Your task to perform on an android device: Open Amazon Image 0: 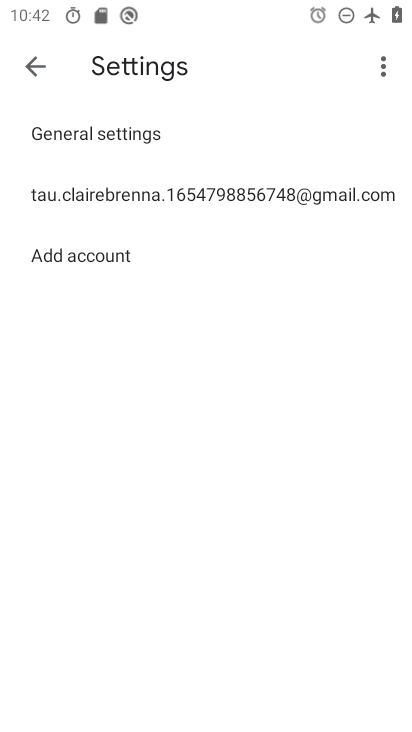
Step 0: press home button
Your task to perform on an android device: Open Amazon Image 1: 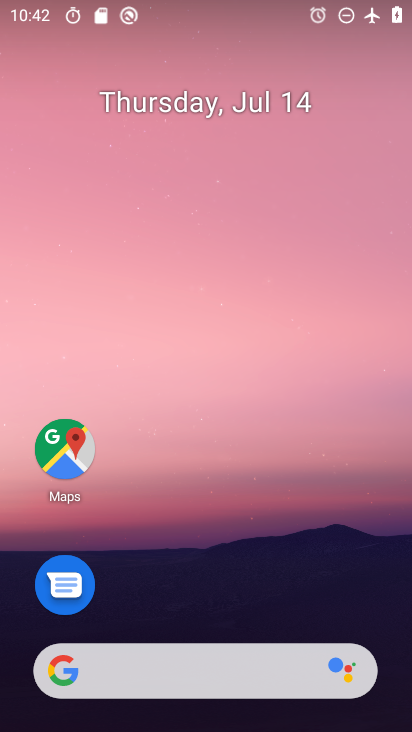
Step 1: drag from (228, 611) to (5, 5)
Your task to perform on an android device: Open Amazon Image 2: 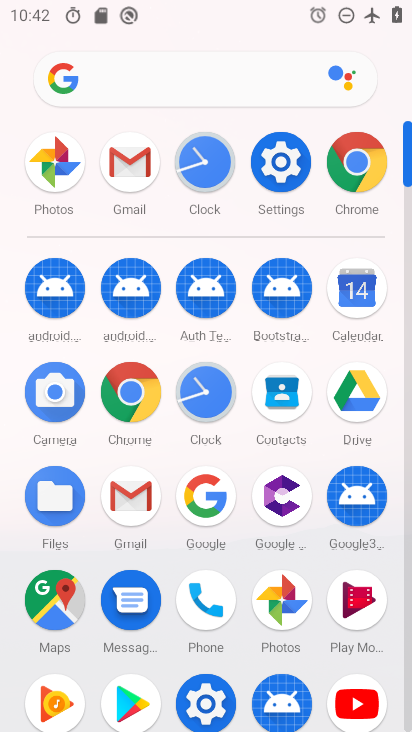
Step 2: click (111, 380)
Your task to perform on an android device: Open Amazon Image 3: 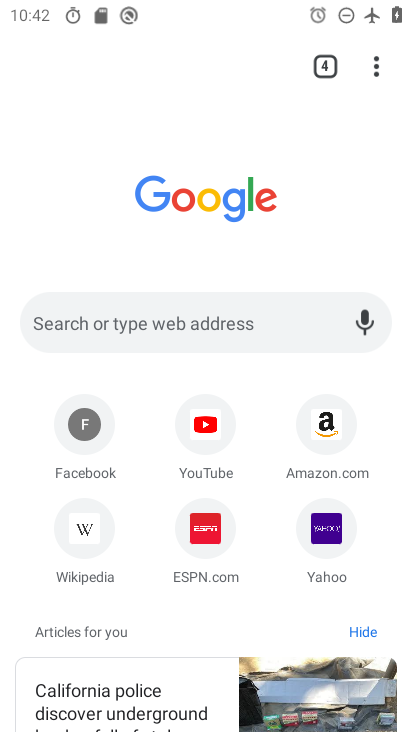
Step 3: click (324, 448)
Your task to perform on an android device: Open Amazon Image 4: 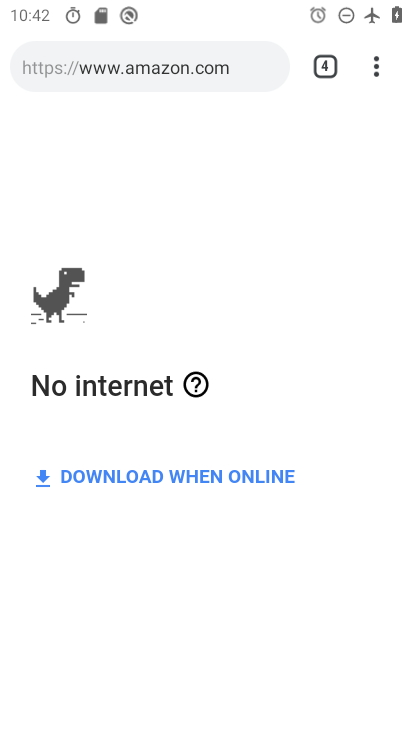
Step 4: task complete